Your task to perform on an android device: toggle data saver in the chrome app Image 0: 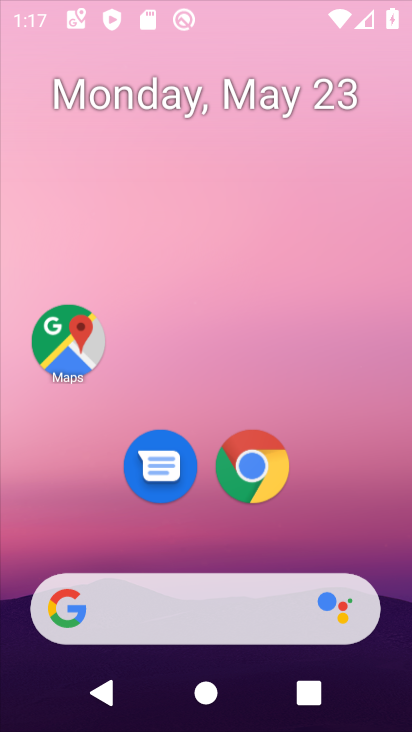
Step 0: click (252, 23)
Your task to perform on an android device: toggle data saver in the chrome app Image 1: 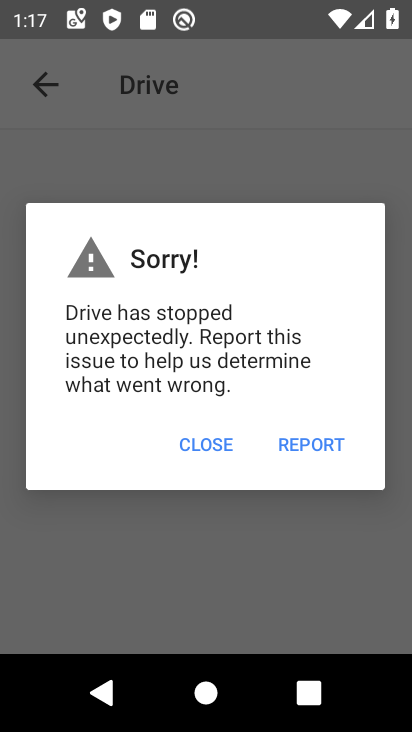
Step 1: press home button
Your task to perform on an android device: toggle data saver in the chrome app Image 2: 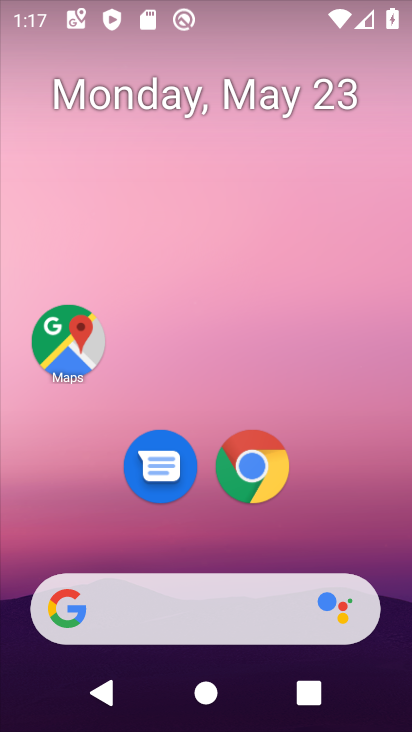
Step 2: click (253, 462)
Your task to perform on an android device: toggle data saver in the chrome app Image 3: 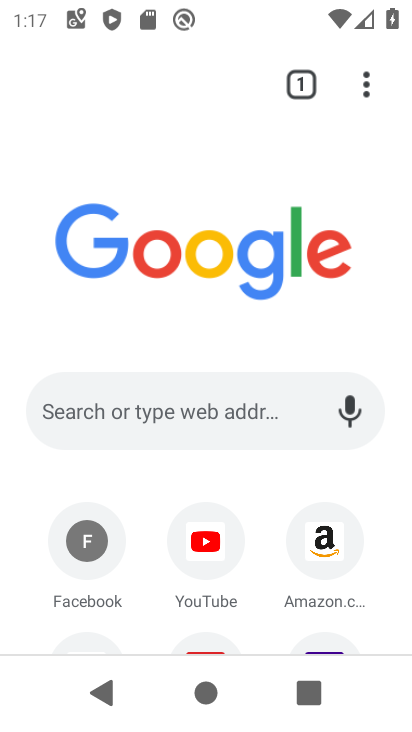
Step 3: click (368, 84)
Your task to perform on an android device: toggle data saver in the chrome app Image 4: 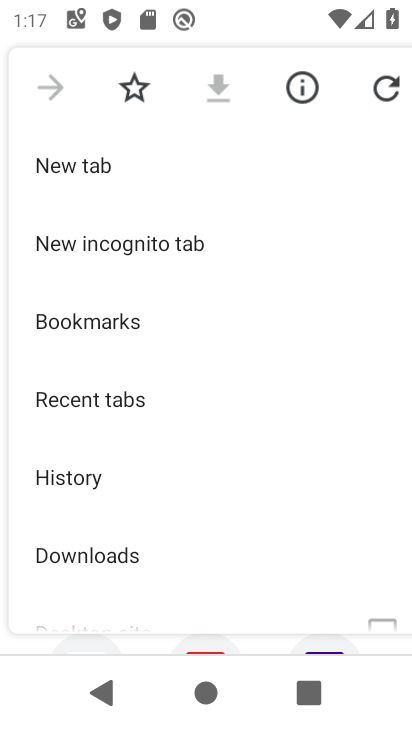
Step 4: drag from (91, 411) to (132, 352)
Your task to perform on an android device: toggle data saver in the chrome app Image 5: 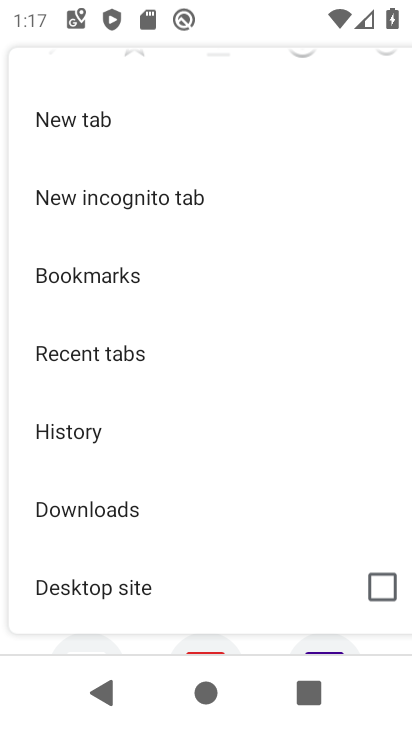
Step 5: drag from (62, 479) to (132, 386)
Your task to perform on an android device: toggle data saver in the chrome app Image 6: 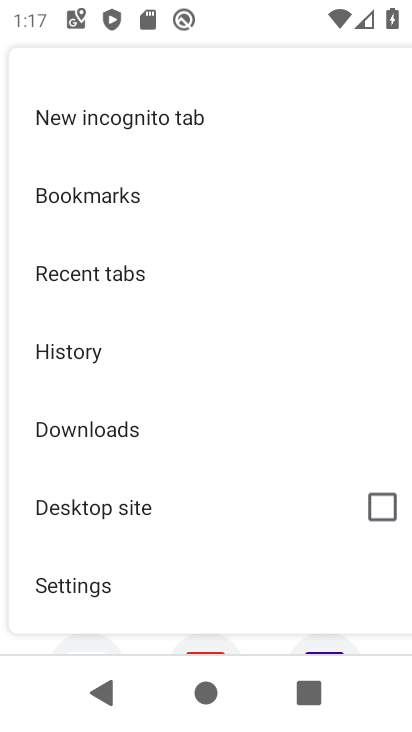
Step 6: drag from (71, 463) to (159, 352)
Your task to perform on an android device: toggle data saver in the chrome app Image 7: 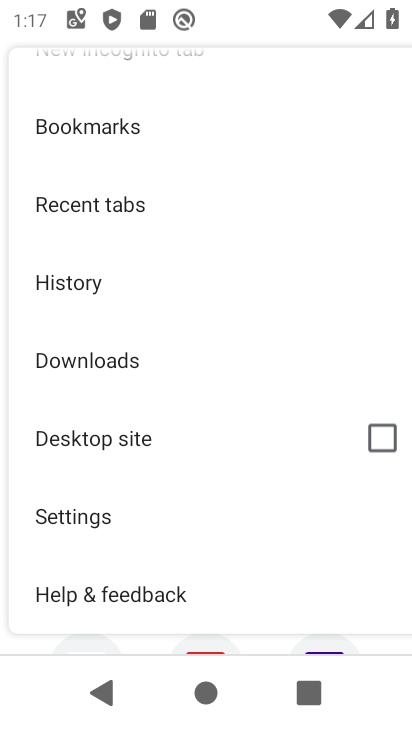
Step 7: drag from (86, 456) to (153, 350)
Your task to perform on an android device: toggle data saver in the chrome app Image 8: 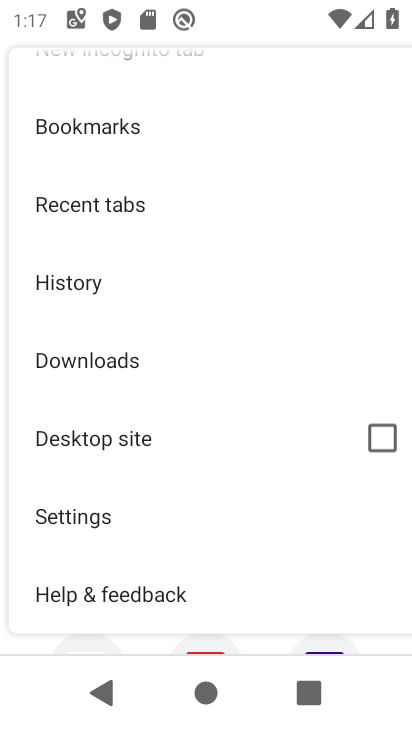
Step 8: click (51, 513)
Your task to perform on an android device: toggle data saver in the chrome app Image 9: 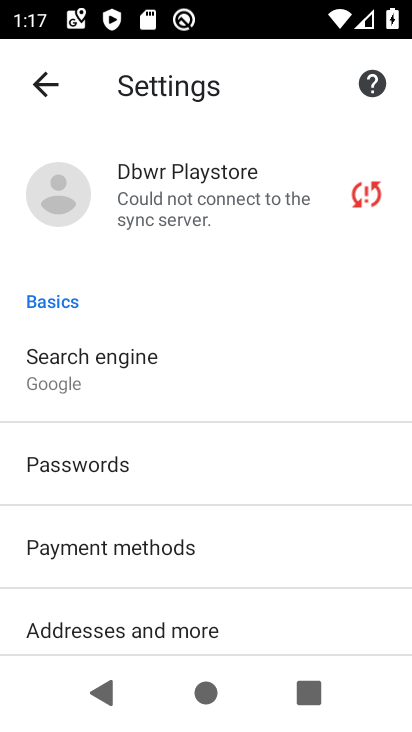
Step 9: drag from (105, 519) to (151, 449)
Your task to perform on an android device: toggle data saver in the chrome app Image 10: 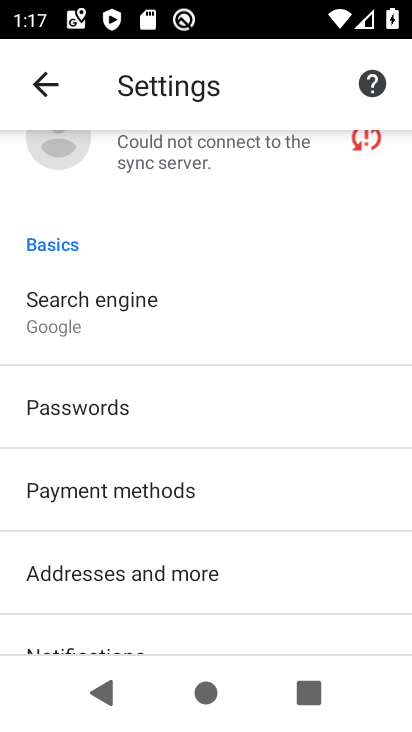
Step 10: drag from (109, 591) to (141, 503)
Your task to perform on an android device: toggle data saver in the chrome app Image 11: 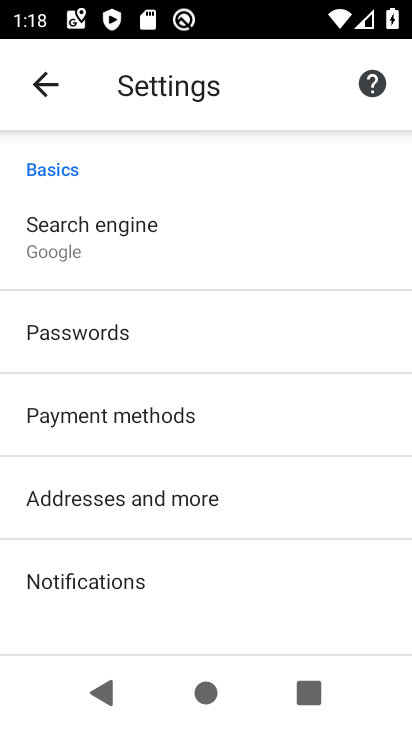
Step 11: drag from (91, 554) to (167, 448)
Your task to perform on an android device: toggle data saver in the chrome app Image 12: 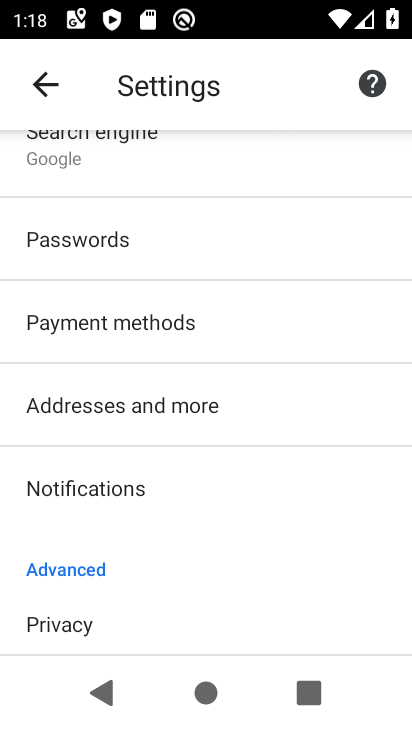
Step 12: drag from (85, 538) to (139, 444)
Your task to perform on an android device: toggle data saver in the chrome app Image 13: 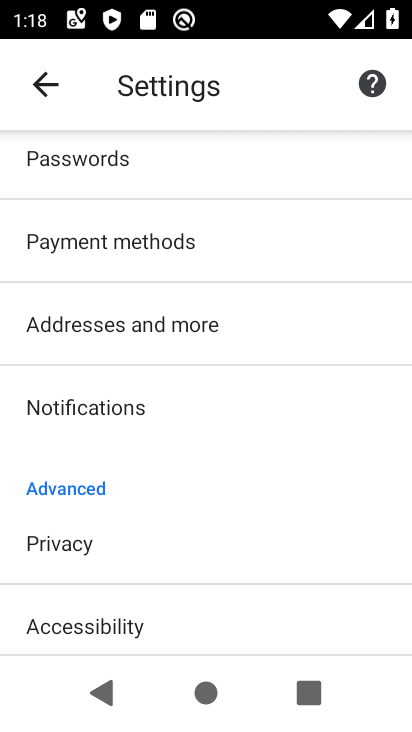
Step 13: drag from (57, 521) to (107, 430)
Your task to perform on an android device: toggle data saver in the chrome app Image 14: 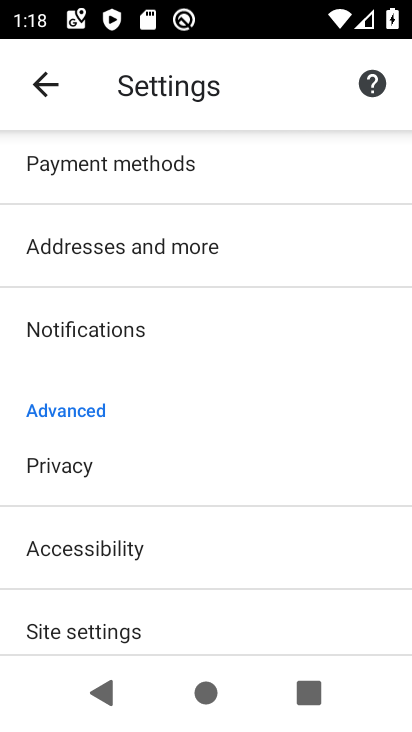
Step 14: drag from (69, 519) to (116, 443)
Your task to perform on an android device: toggle data saver in the chrome app Image 15: 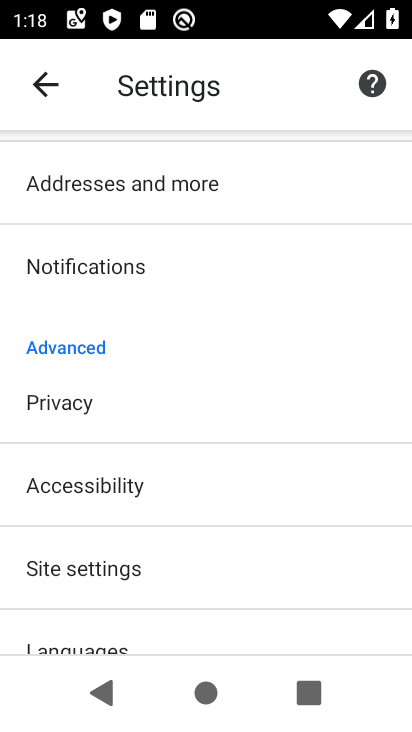
Step 15: drag from (67, 535) to (111, 450)
Your task to perform on an android device: toggle data saver in the chrome app Image 16: 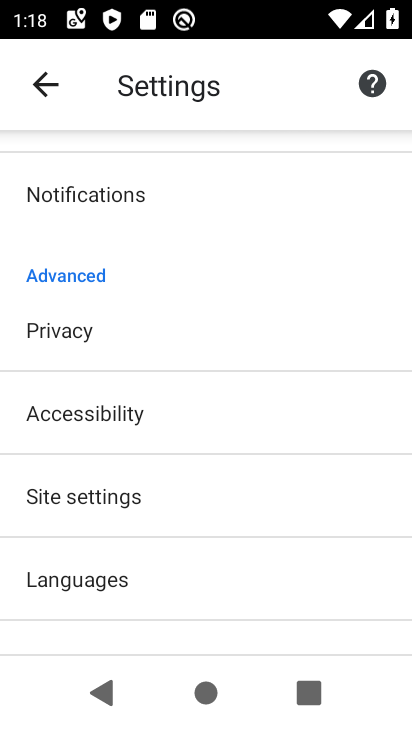
Step 16: drag from (67, 546) to (96, 458)
Your task to perform on an android device: toggle data saver in the chrome app Image 17: 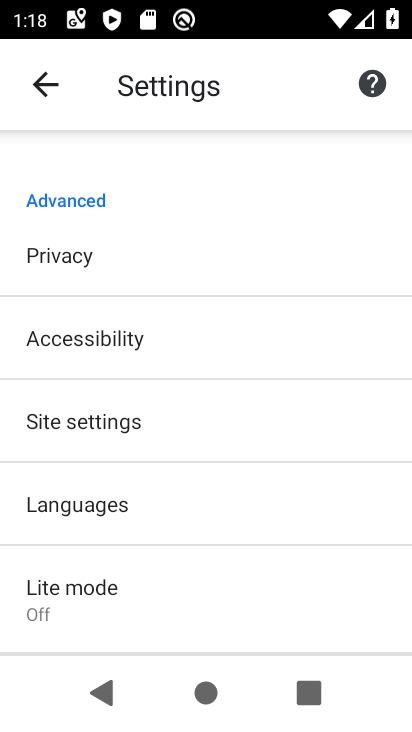
Step 17: drag from (66, 568) to (122, 464)
Your task to perform on an android device: toggle data saver in the chrome app Image 18: 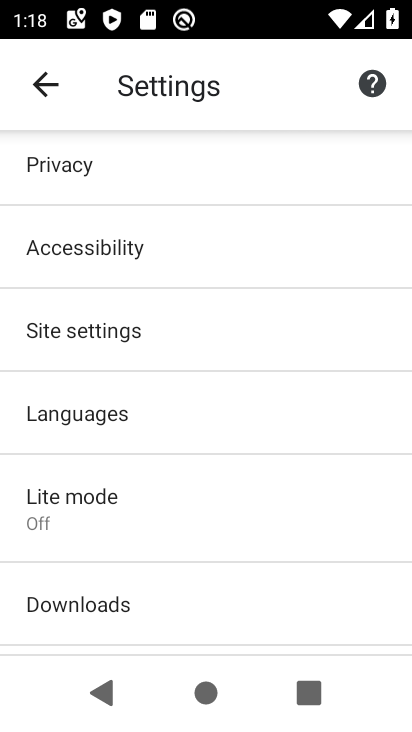
Step 18: click (69, 493)
Your task to perform on an android device: toggle data saver in the chrome app Image 19: 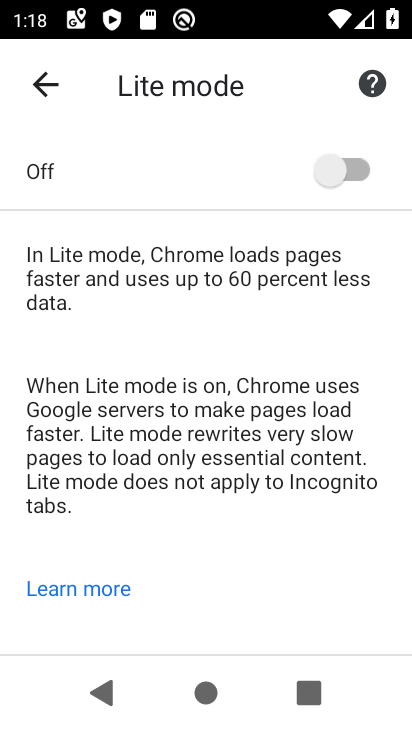
Step 19: click (334, 173)
Your task to perform on an android device: toggle data saver in the chrome app Image 20: 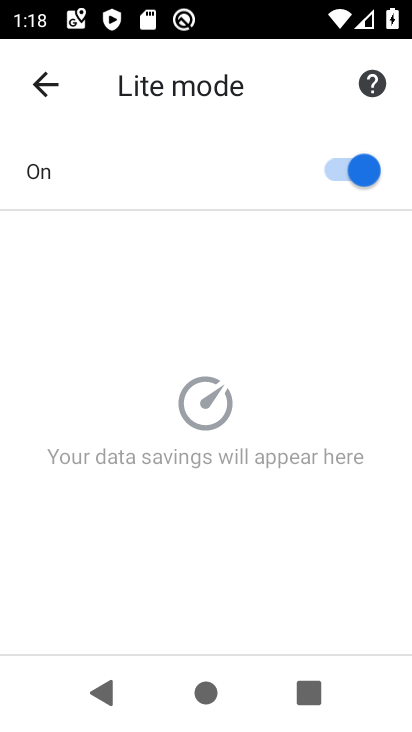
Step 20: task complete